Your task to perform on an android device: turn off sleep mode Image 0: 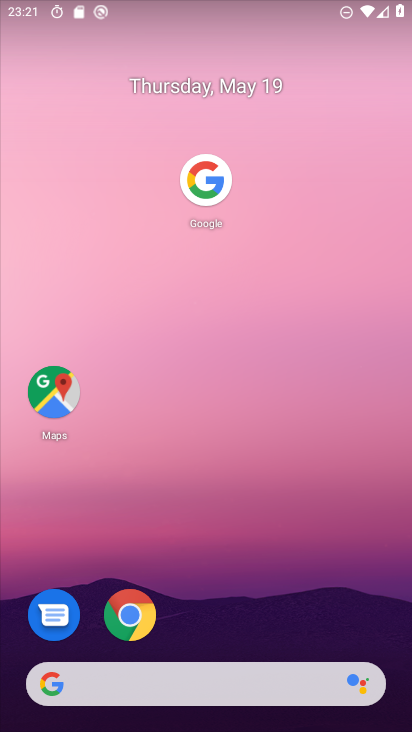
Step 0: drag from (234, 606) to (272, 61)
Your task to perform on an android device: turn off sleep mode Image 1: 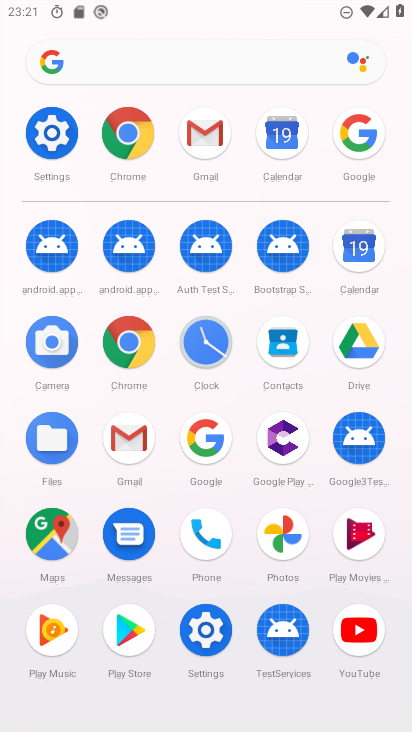
Step 1: click (42, 127)
Your task to perform on an android device: turn off sleep mode Image 2: 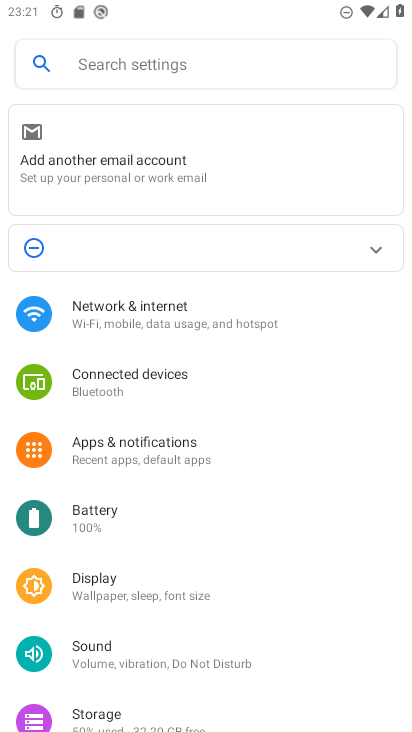
Step 2: click (155, 588)
Your task to perform on an android device: turn off sleep mode Image 3: 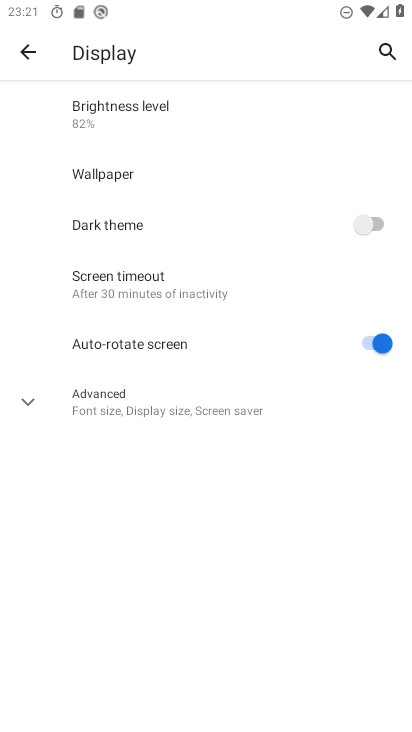
Step 3: click (137, 294)
Your task to perform on an android device: turn off sleep mode Image 4: 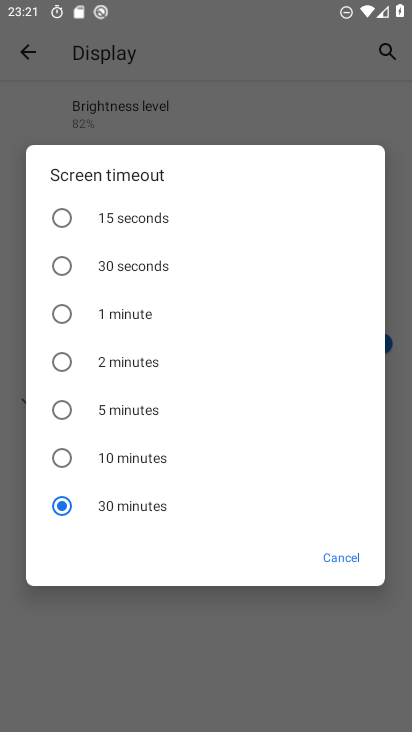
Step 4: task complete